Your task to perform on an android device: change the clock display to analog Image 0: 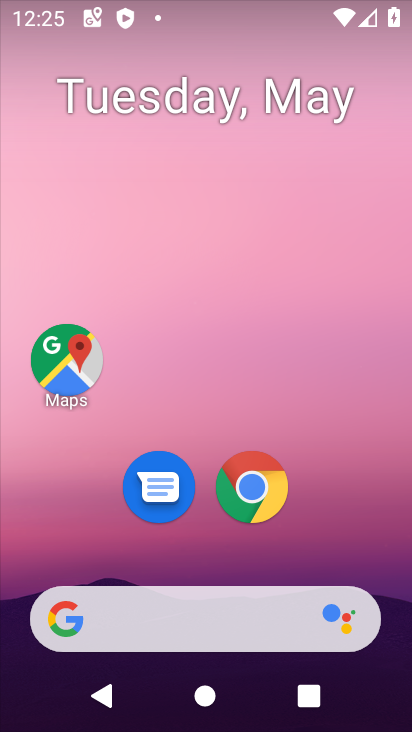
Step 0: drag from (337, 511) to (253, 37)
Your task to perform on an android device: change the clock display to analog Image 1: 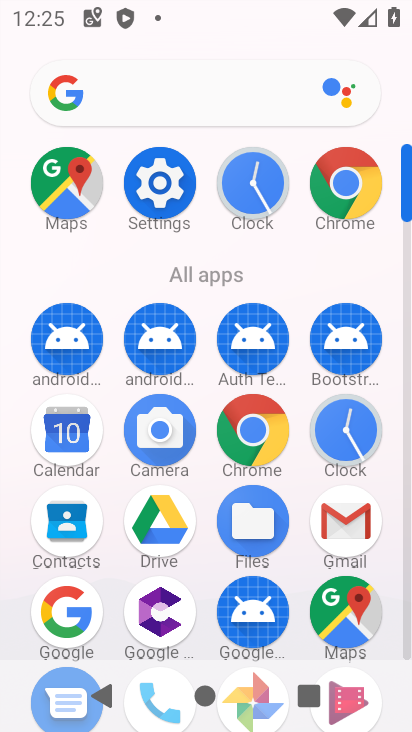
Step 1: drag from (12, 554) to (0, 292)
Your task to perform on an android device: change the clock display to analog Image 2: 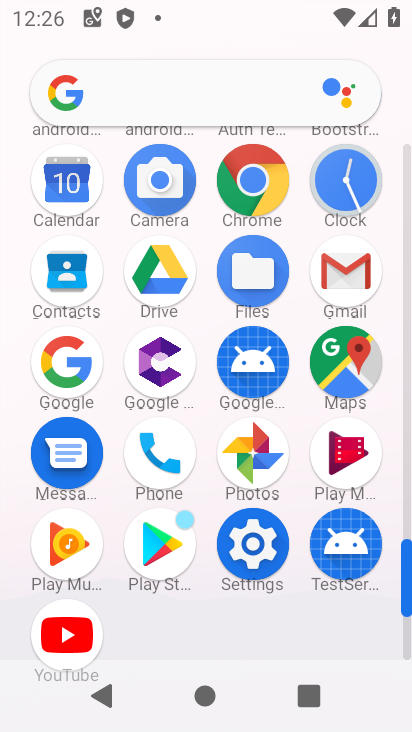
Step 2: click (251, 541)
Your task to perform on an android device: change the clock display to analog Image 3: 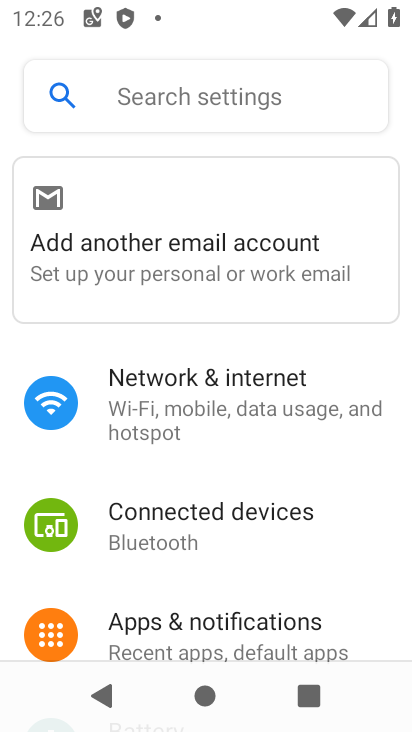
Step 3: drag from (340, 542) to (345, 163)
Your task to perform on an android device: change the clock display to analog Image 4: 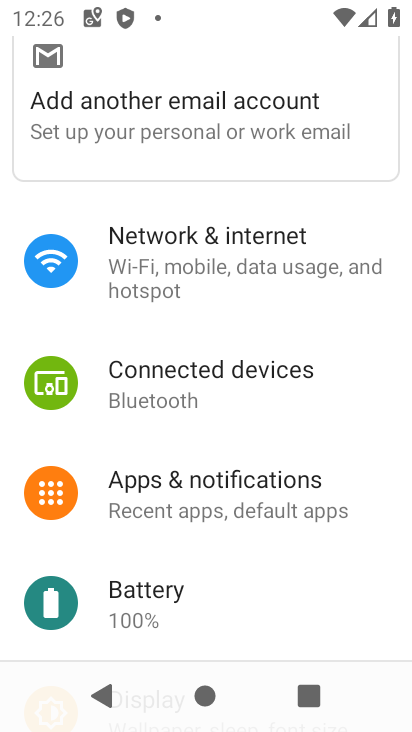
Step 4: press back button
Your task to perform on an android device: change the clock display to analog Image 5: 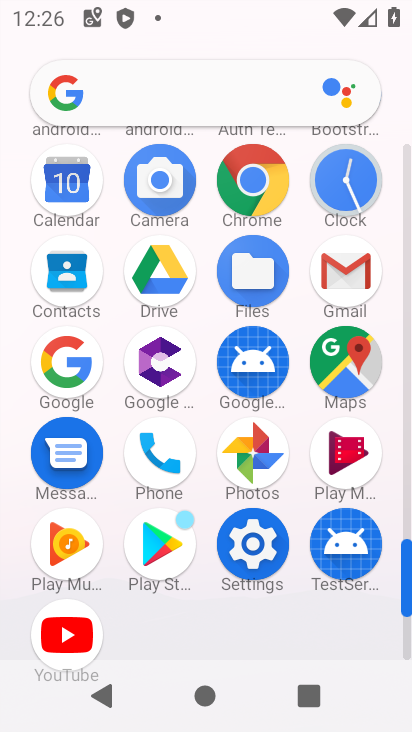
Step 5: click (349, 184)
Your task to perform on an android device: change the clock display to analog Image 6: 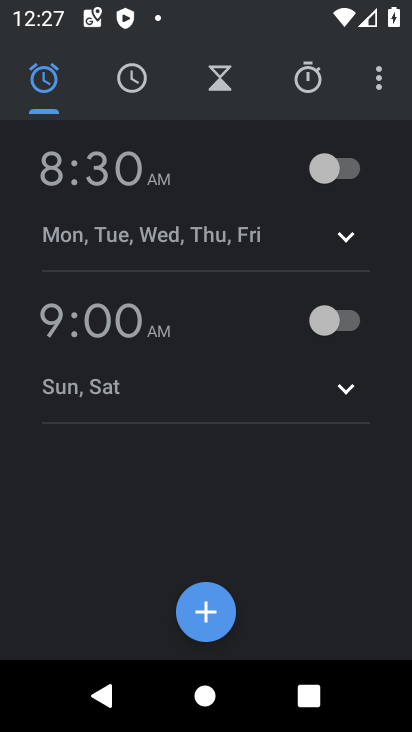
Step 6: drag from (385, 90) to (323, 153)
Your task to perform on an android device: change the clock display to analog Image 7: 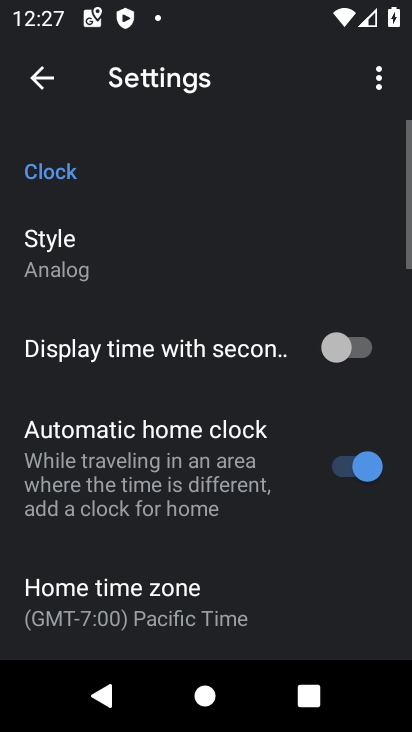
Step 7: click (137, 249)
Your task to perform on an android device: change the clock display to analog Image 8: 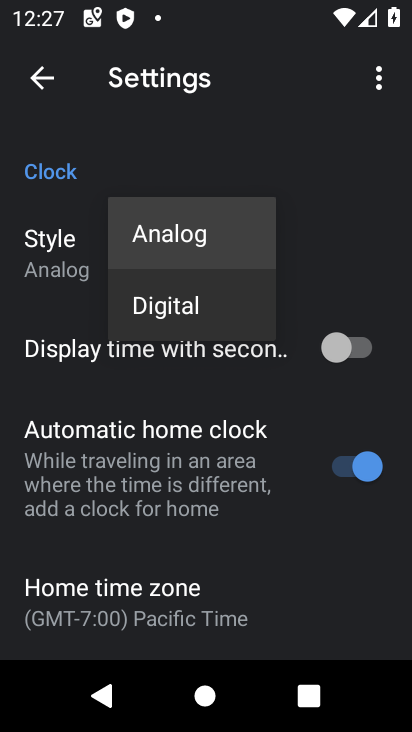
Step 8: click (177, 244)
Your task to perform on an android device: change the clock display to analog Image 9: 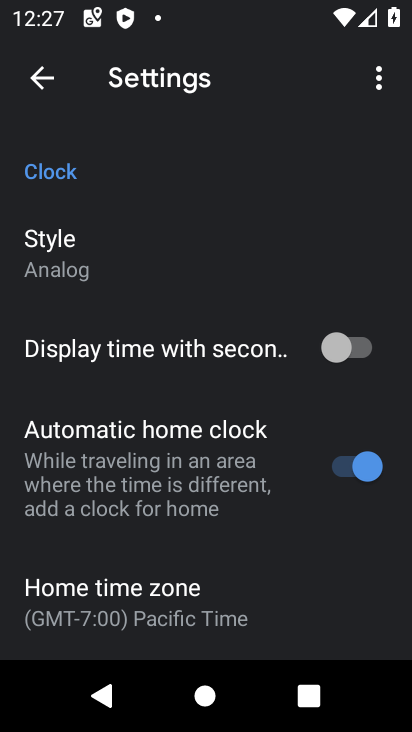
Step 9: task complete